Your task to perform on an android device: see creations saved in the google photos Image 0: 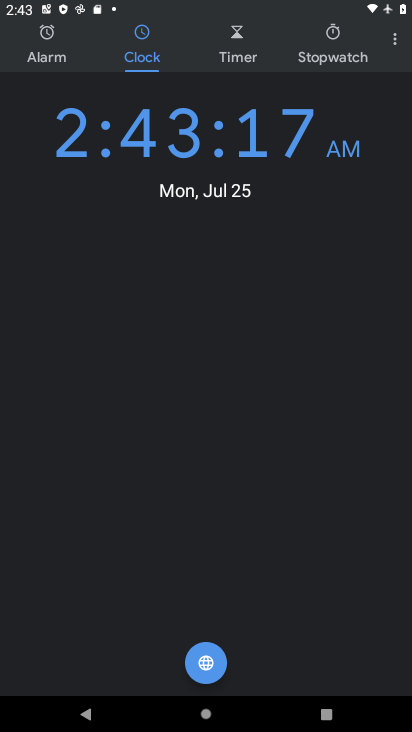
Step 0: press home button
Your task to perform on an android device: see creations saved in the google photos Image 1: 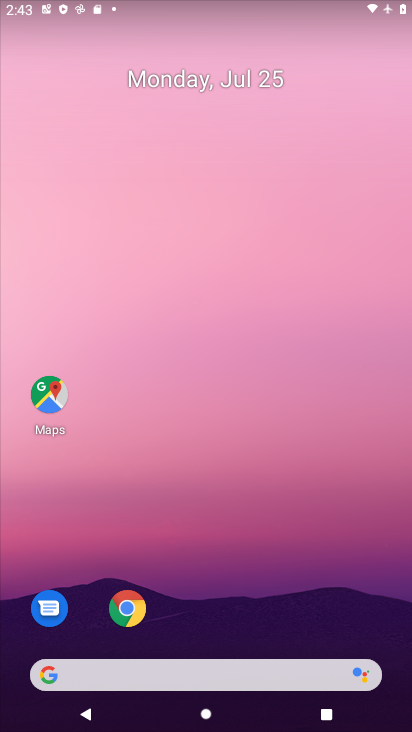
Step 1: drag from (289, 414) to (325, 104)
Your task to perform on an android device: see creations saved in the google photos Image 2: 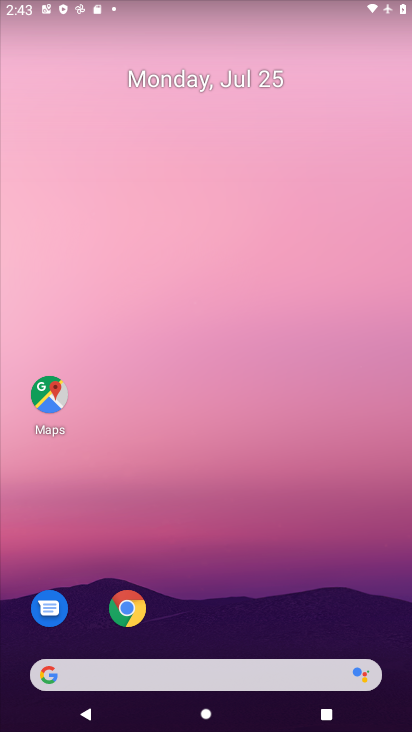
Step 2: drag from (205, 606) to (265, 42)
Your task to perform on an android device: see creations saved in the google photos Image 3: 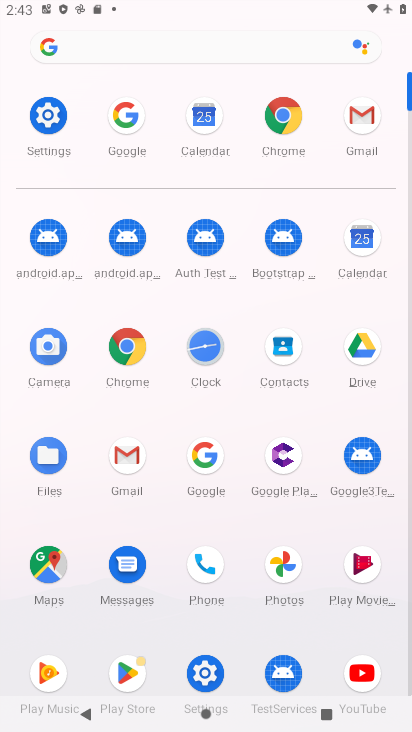
Step 3: click (279, 578)
Your task to perform on an android device: see creations saved in the google photos Image 4: 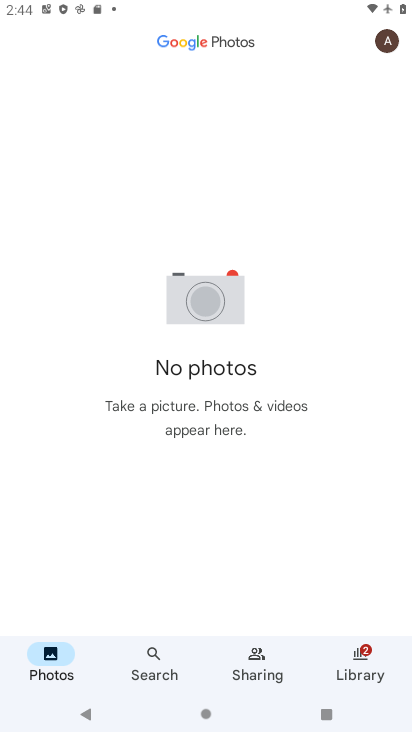
Step 4: click (356, 657)
Your task to perform on an android device: see creations saved in the google photos Image 5: 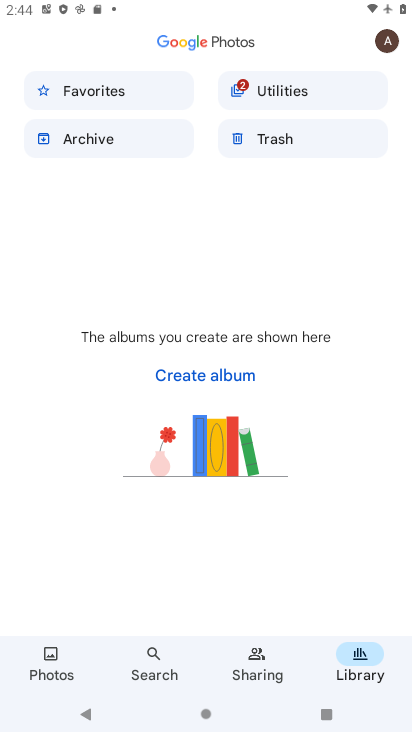
Step 5: click (383, 39)
Your task to perform on an android device: see creations saved in the google photos Image 6: 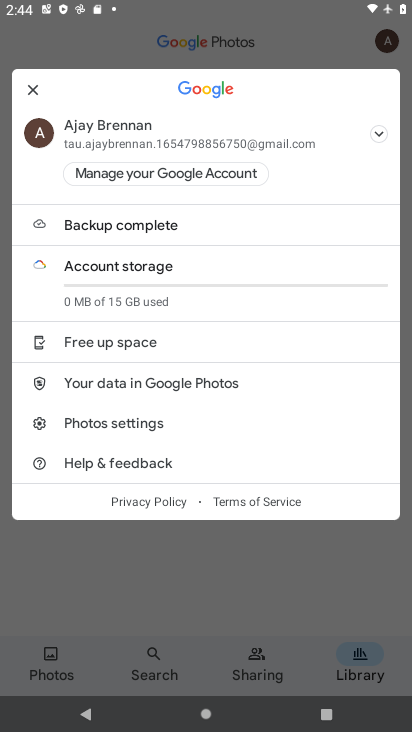
Step 6: task complete